Your task to perform on an android device: Go to settings Image 0: 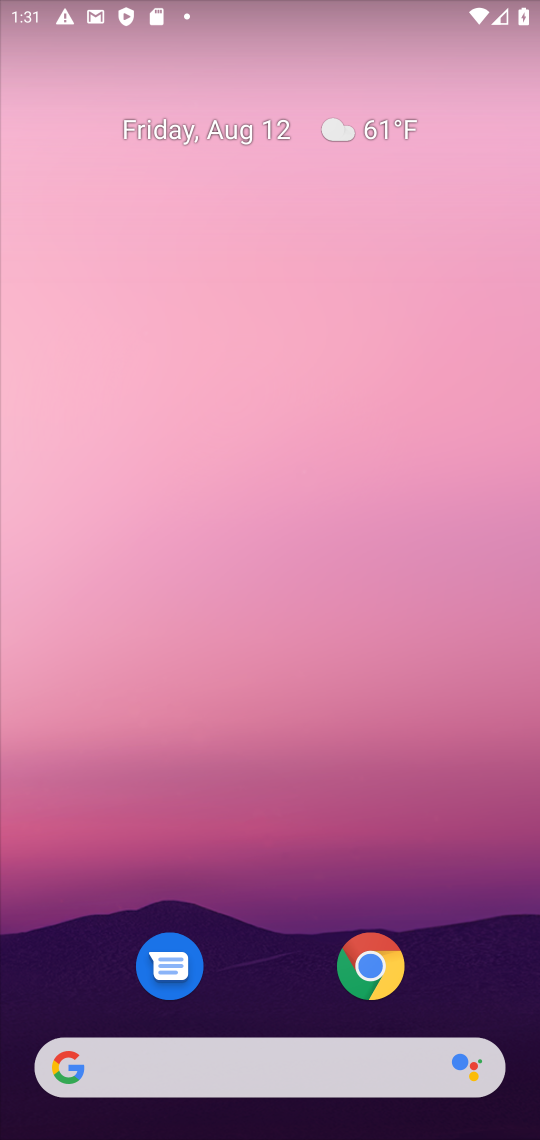
Step 0: drag from (324, 683) to (435, 28)
Your task to perform on an android device: Go to settings Image 1: 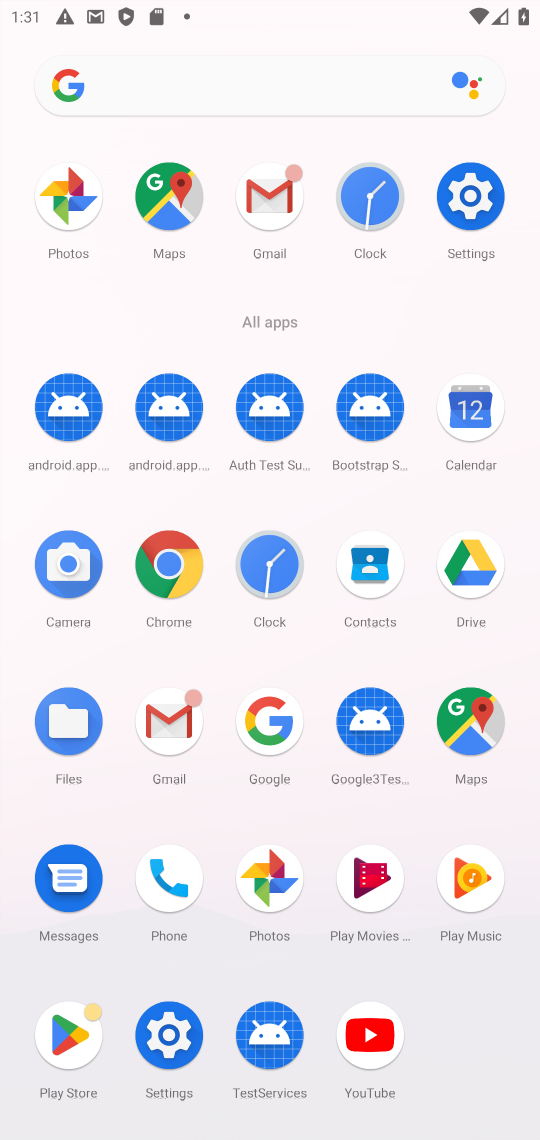
Step 1: click (479, 178)
Your task to perform on an android device: Go to settings Image 2: 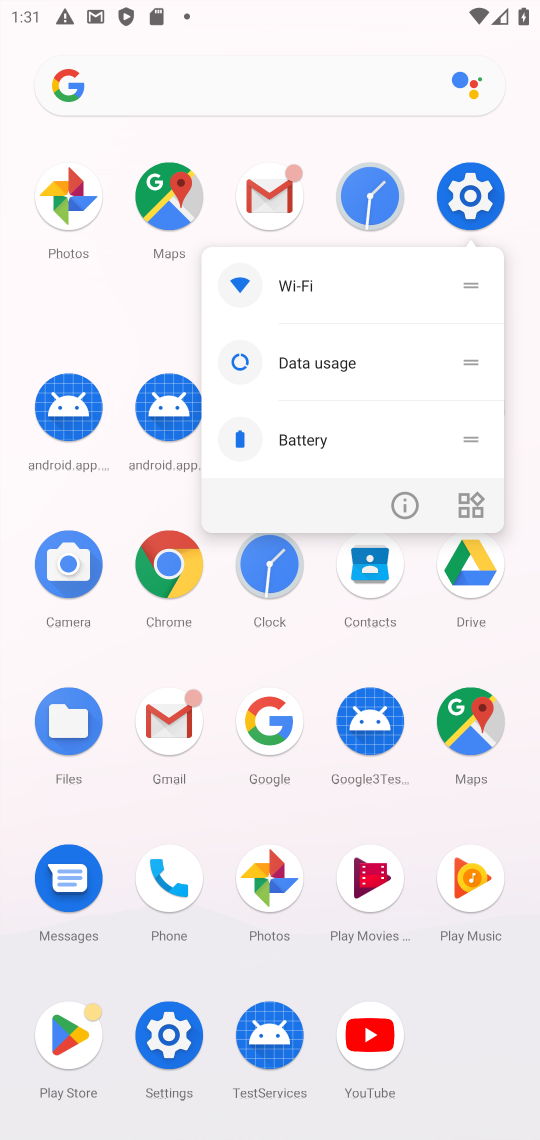
Step 2: click (170, 1031)
Your task to perform on an android device: Go to settings Image 3: 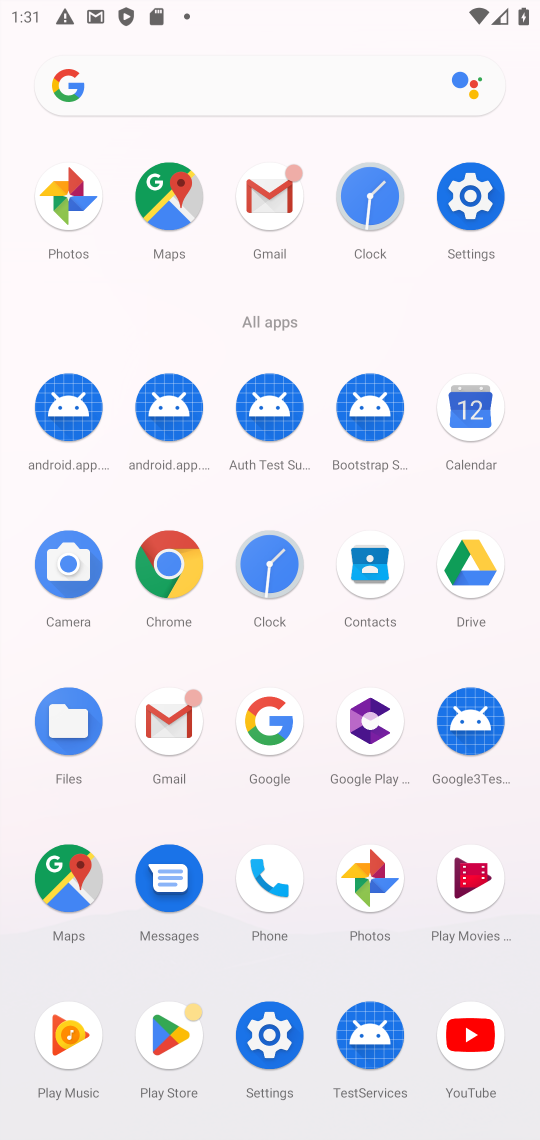
Step 3: click (266, 1047)
Your task to perform on an android device: Go to settings Image 4: 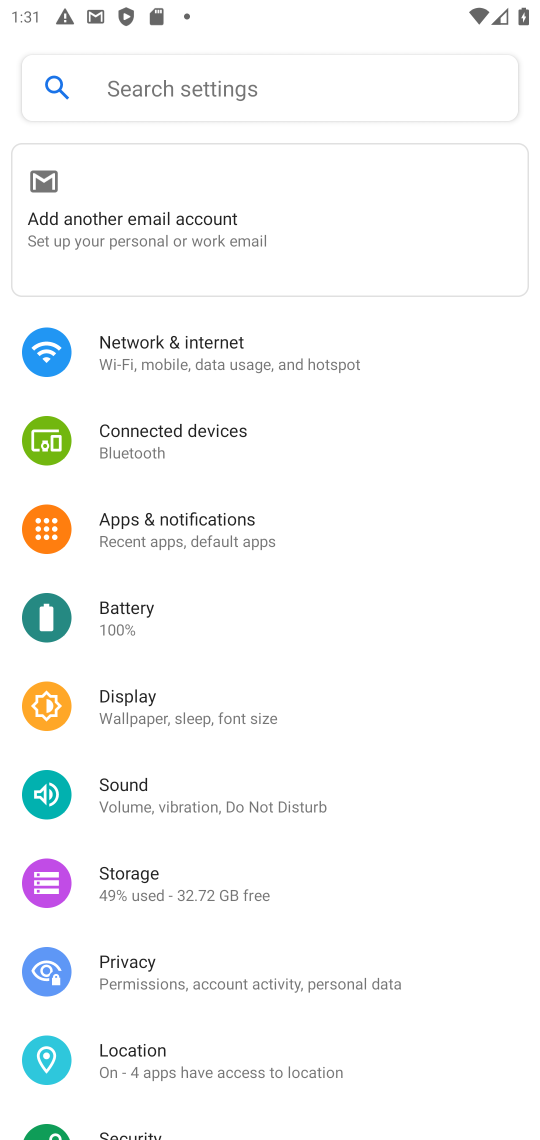
Step 4: task complete